Your task to perform on an android device: Open calendar and show me the fourth week of next month Image 0: 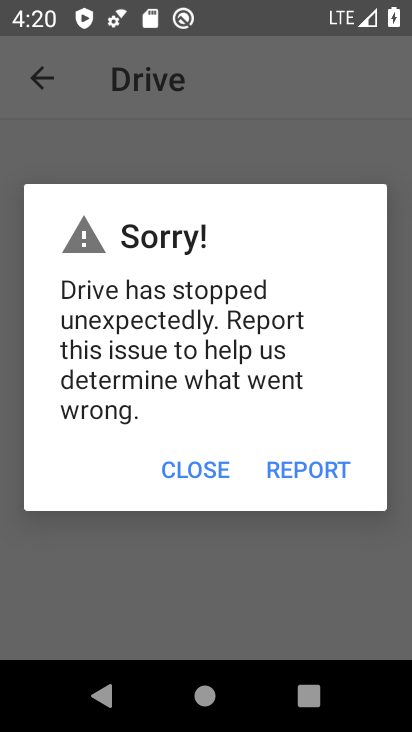
Step 0: press home button
Your task to perform on an android device: Open calendar and show me the fourth week of next month Image 1: 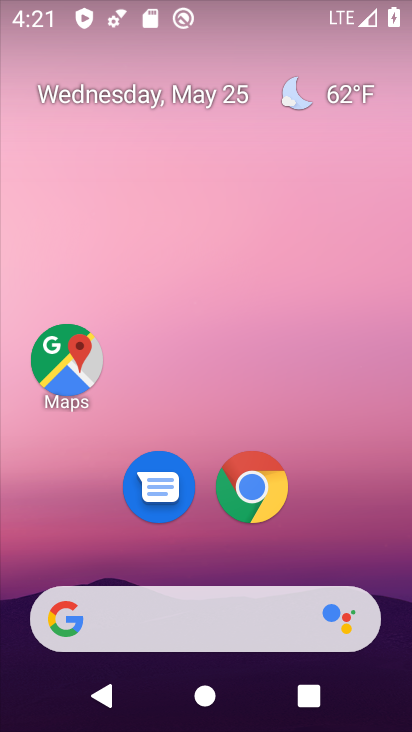
Step 1: drag from (350, 556) to (319, 65)
Your task to perform on an android device: Open calendar and show me the fourth week of next month Image 2: 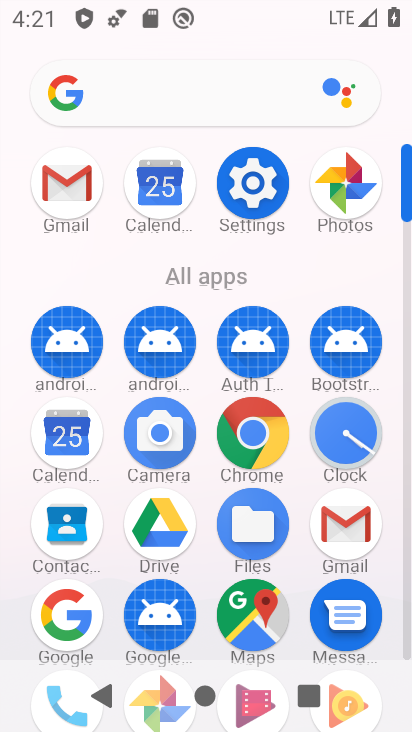
Step 2: click (67, 445)
Your task to perform on an android device: Open calendar and show me the fourth week of next month Image 3: 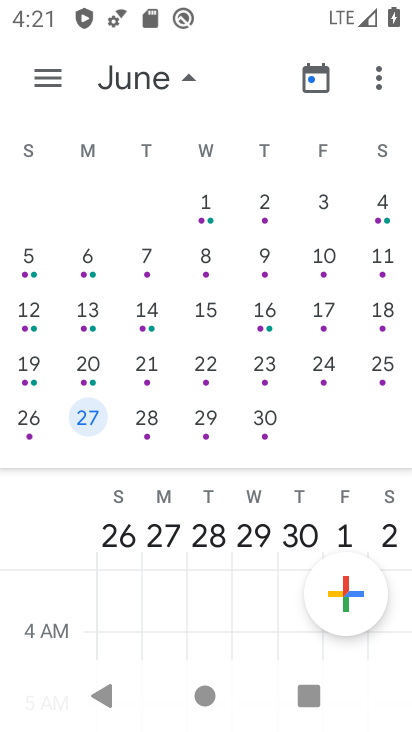
Step 3: click (85, 423)
Your task to perform on an android device: Open calendar and show me the fourth week of next month Image 4: 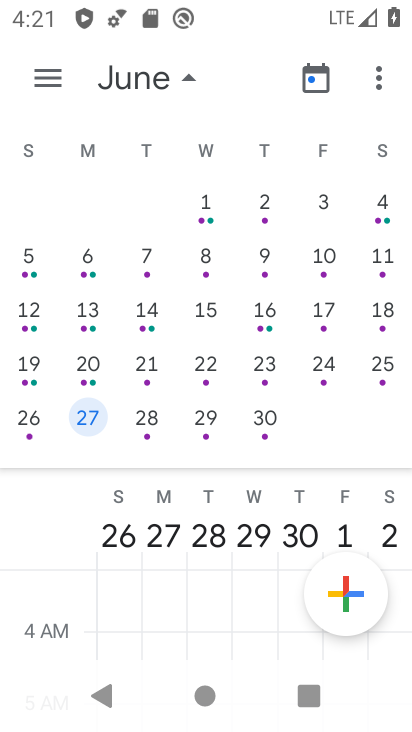
Step 4: task complete